Your task to perform on an android device: Search for seafood restaurants on Google Maps Image 0: 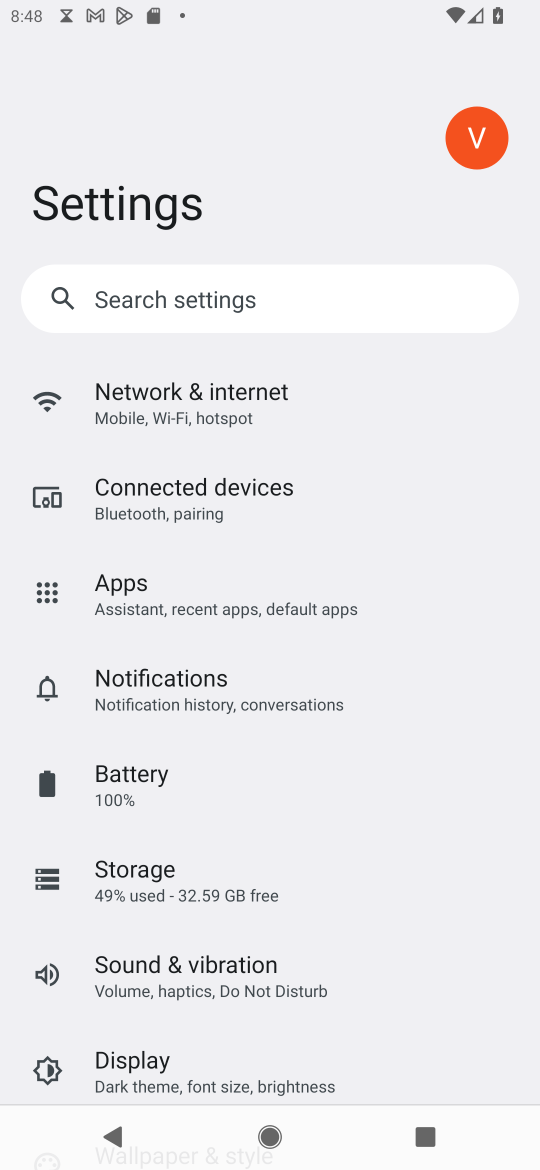
Step 0: press back button
Your task to perform on an android device: Search for seafood restaurants on Google Maps Image 1: 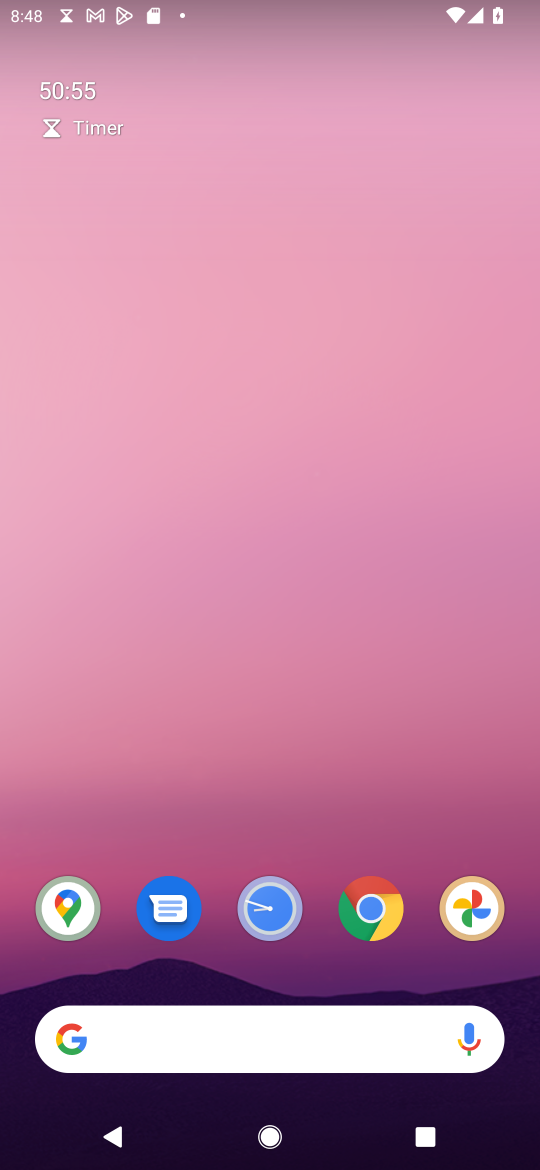
Step 1: click (55, 901)
Your task to perform on an android device: Search for seafood restaurants on Google Maps Image 2: 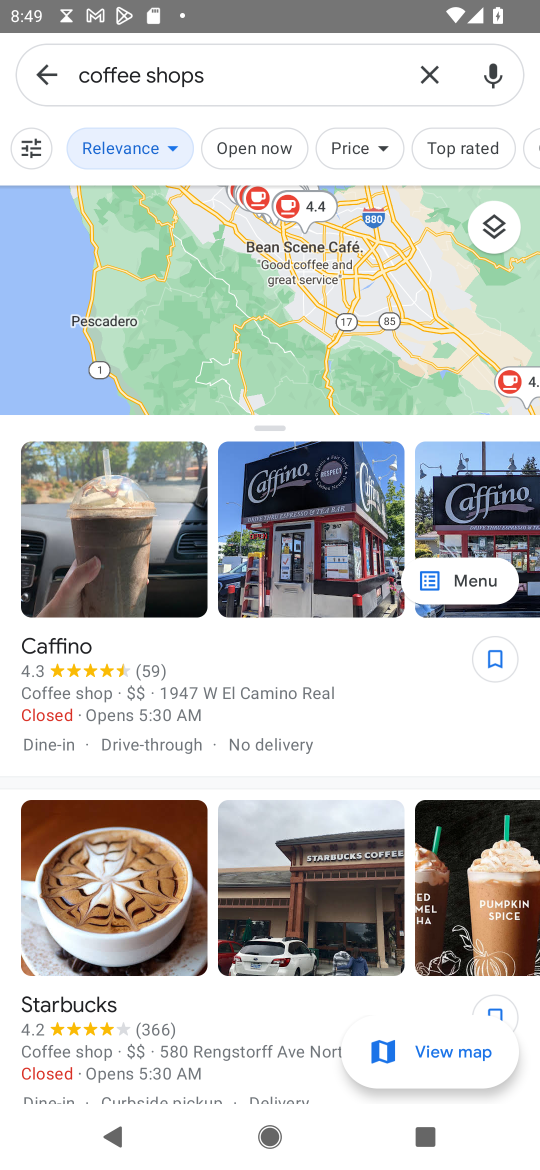
Step 2: click (434, 80)
Your task to perform on an android device: Search for seafood restaurants on Google Maps Image 3: 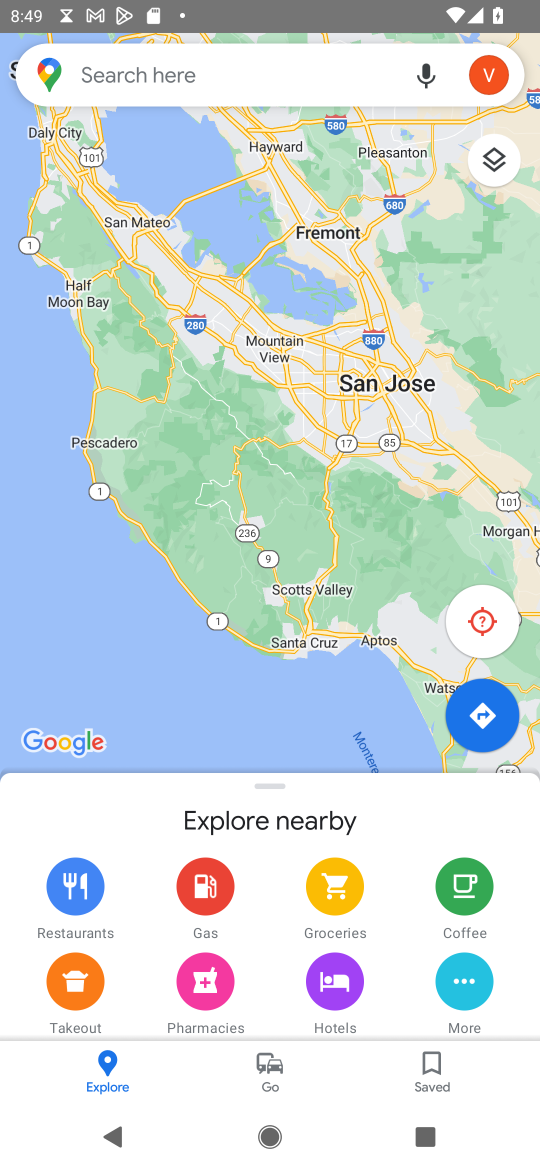
Step 3: click (235, 81)
Your task to perform on an android device: Search for seafood restaurants on Google Maps Image 4: 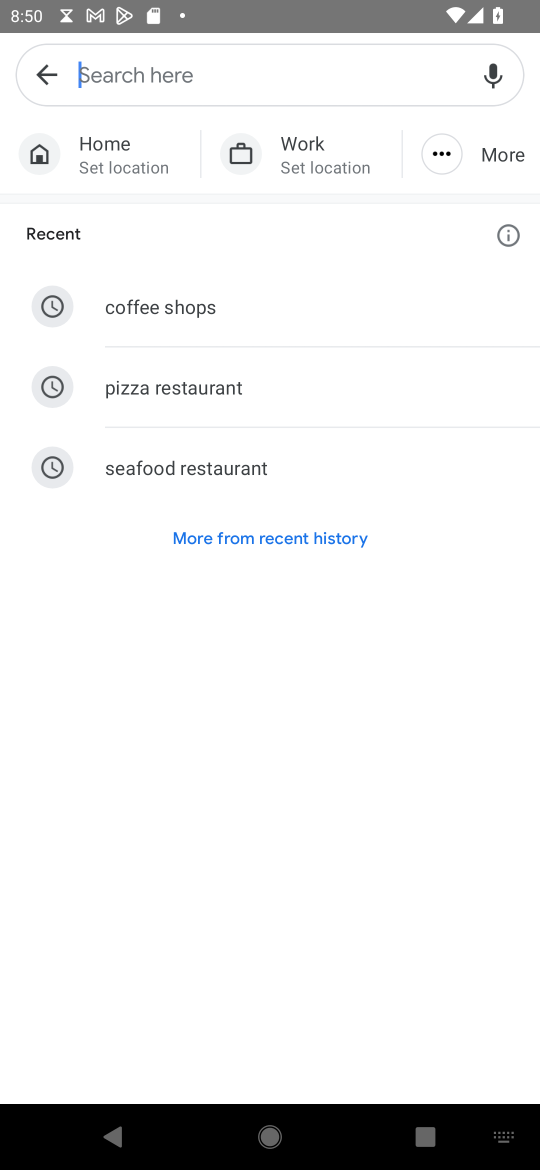
Step 4: type "seafood restaurants"
Your task to perform on an android device: Search for seafood restaurants on Google Maps Image 5: 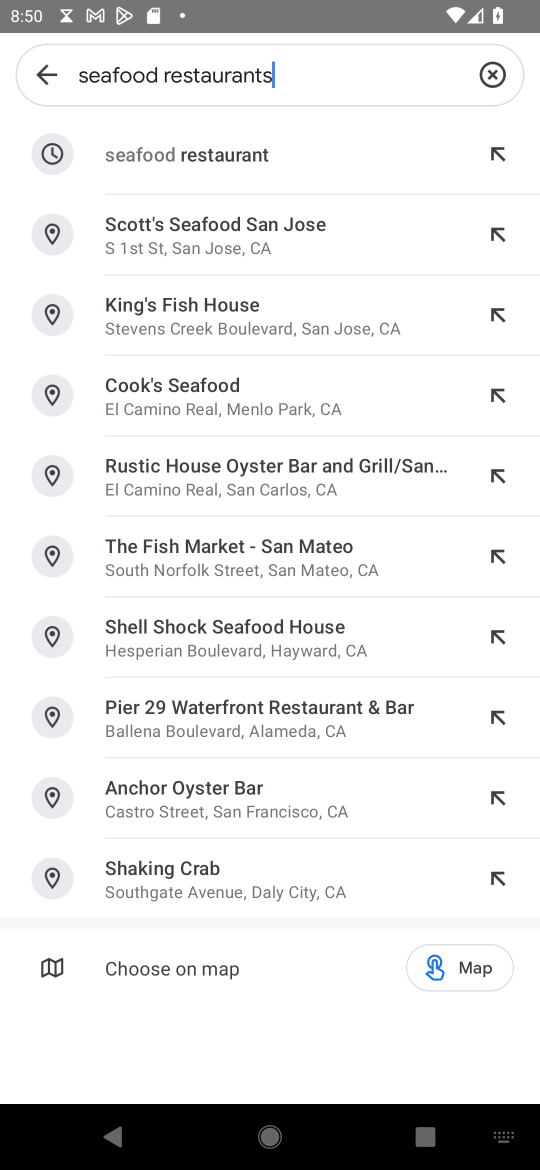
Step 5: click (329, 157)
Your task to perform on an android device: Search for seafood restaurants on Google Maps Image 6: 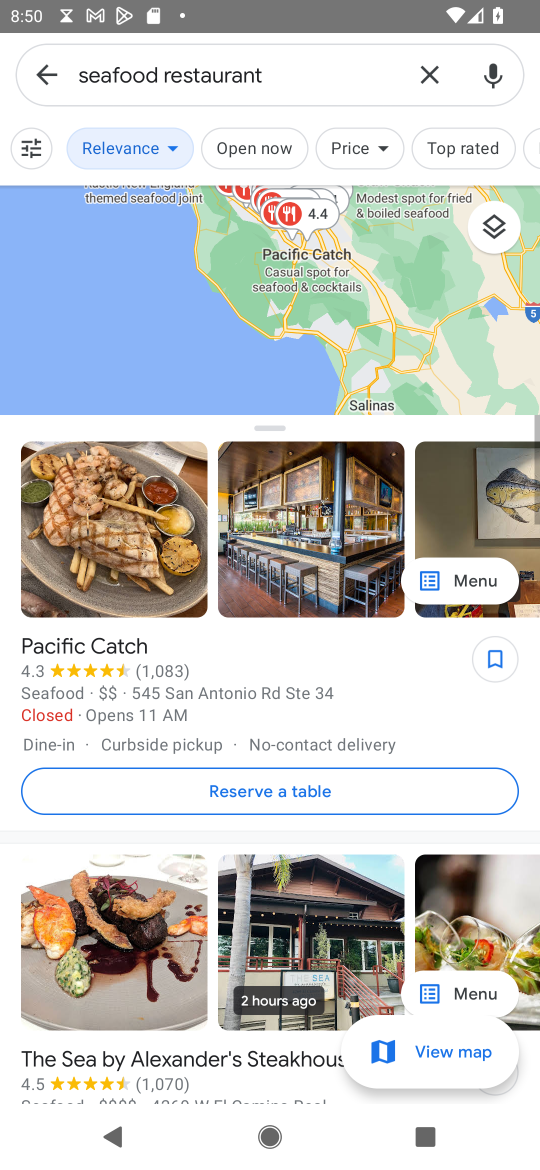
Step 6: task complete